Your task to perform on an android device: Show me popular games on the Play Store Image 0: 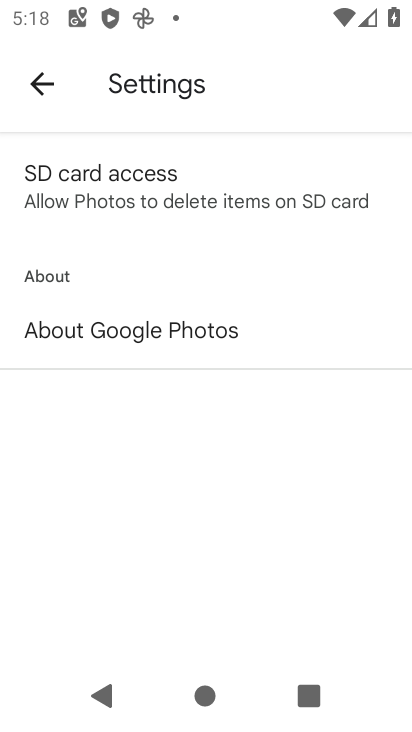
Step 0: press home button
Your task to perform on an android device: Show me popular games on the Play Store Image 1: 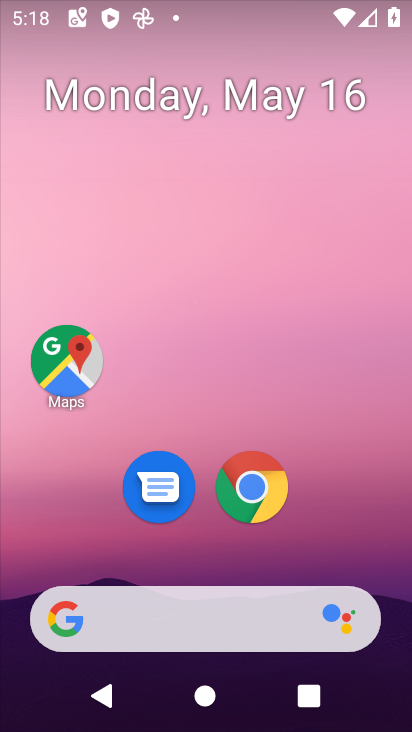
Step 1: drag from (402, 612) to (388, 115)
Your task to perform on an android device: Show me popular games on the Play Store Image 2: 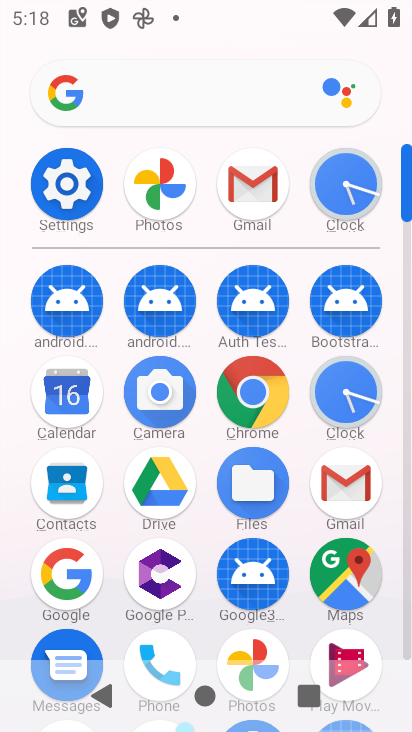
Step 2: click (408, 648)
Your task to perform on an android device: Show me popular games on the Play Store Image 3: 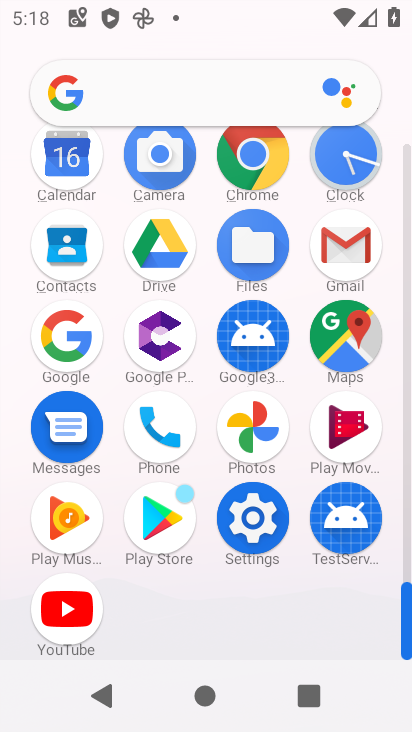
Step 3: click (170, 517)
Your task to perform on an android device: Show me popular games on the Play Store Image 4: 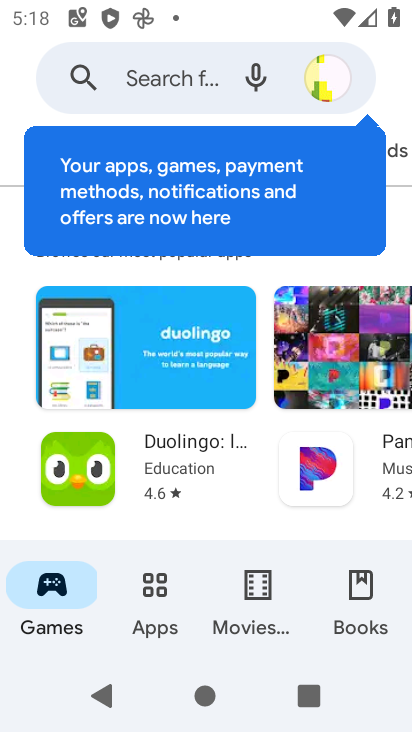
Step 4: click (145, 584)
Your task to perform on an android device: Show me popular games on the Play Store Image 5: 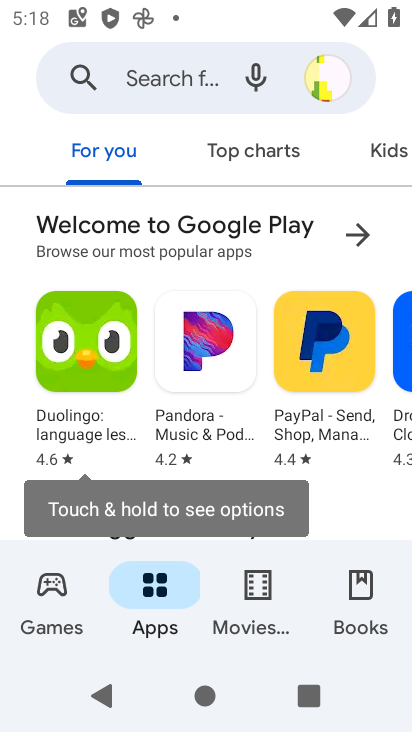
Step 5: drag from (275, 473) to (244, 121)
Your task to perform on an android device: Show me popular games on the Play Store Image 6: 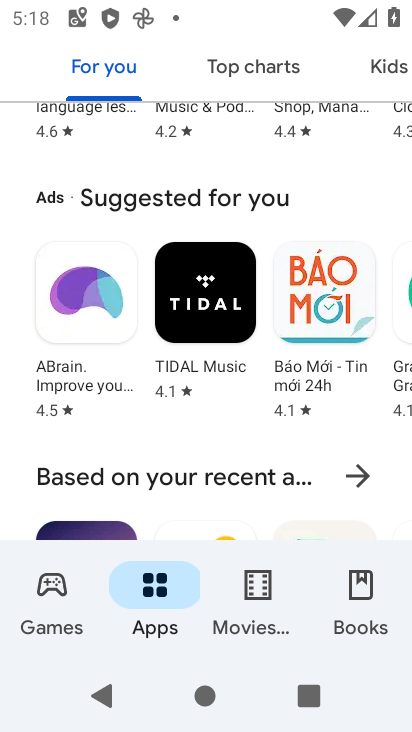
Step 6: drag from (232, 499) to (217, 70)
Your task to perform on an android device: Show me popular games on the Play Store Image 7: 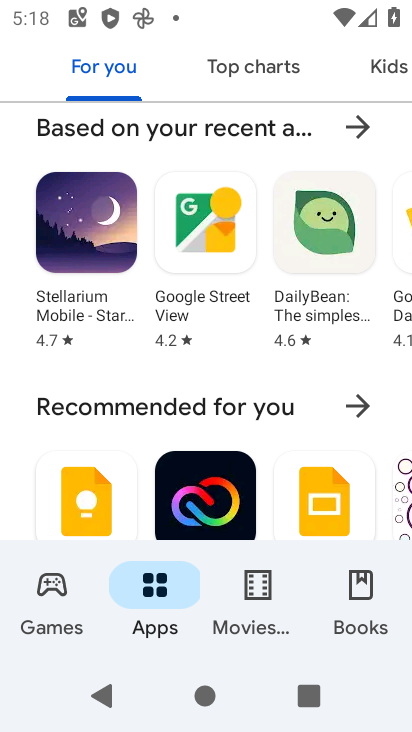
Step 7: drag from (246, 508) to (224, 161)
Your task to perform on an android device: Show me popular games on the Play Store Image 8: 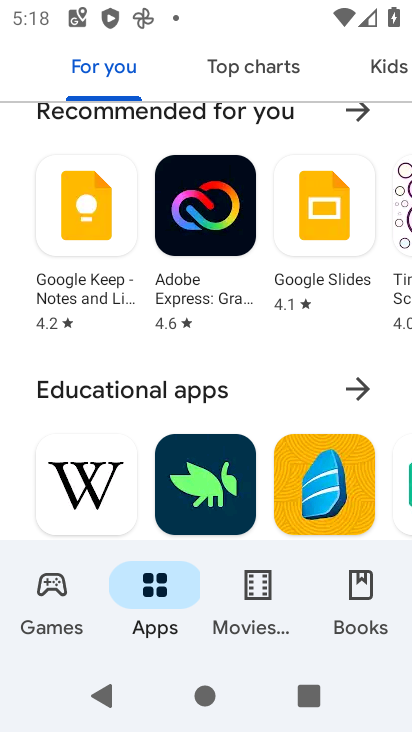
Step 8: click (36, 594)
Your task to perform on an android device: Show me popular games on the Play Store Image 9: 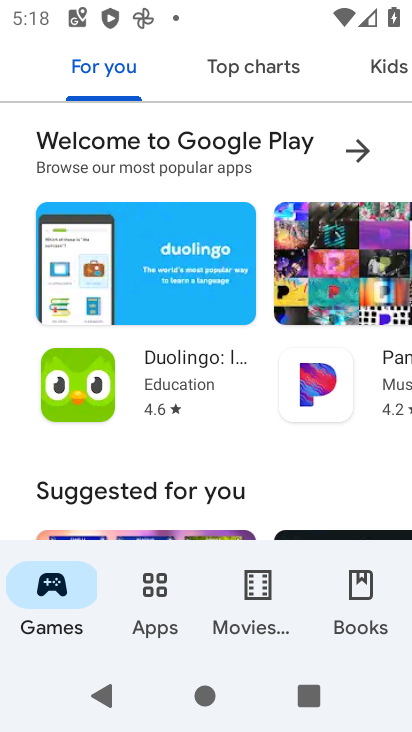
Step 9: drag from (282, 459) to (240, 86)
Your task to perform on an android device: Show me popular games on the Play Store Image 10: 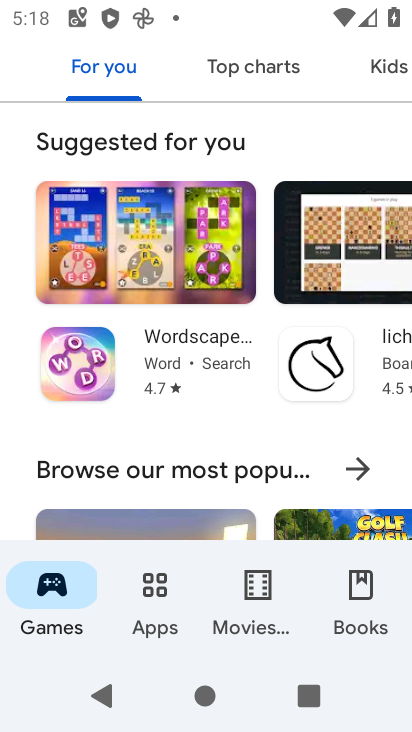
Step 10: drag from (255, 474) to (256, 233)
Your task to perform on an android device: Show me popular games on the Play Store Image 11: 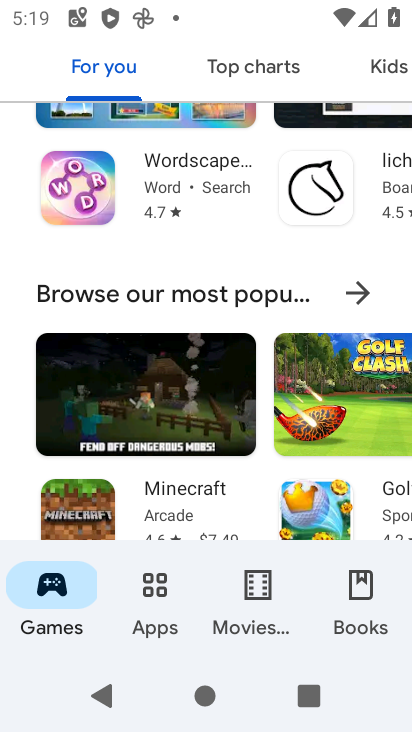
Step 11: click (351, 289)
Your task to perform on an android device: Show me popular games on the Play Store Image 12: 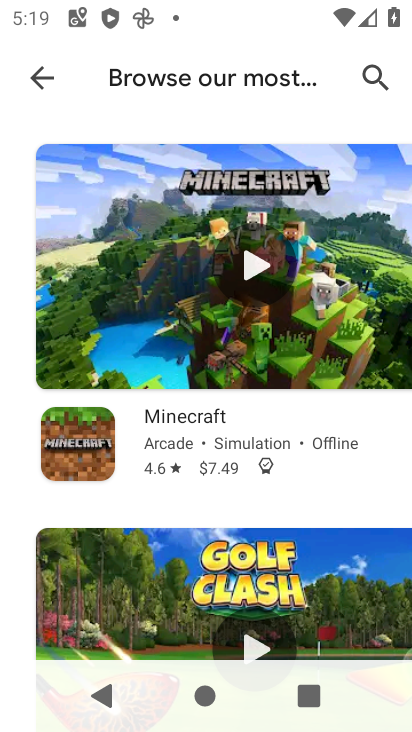
Step 12: task complete